Your task to perform on an android device: turn off translation in the chrome app Image 0: 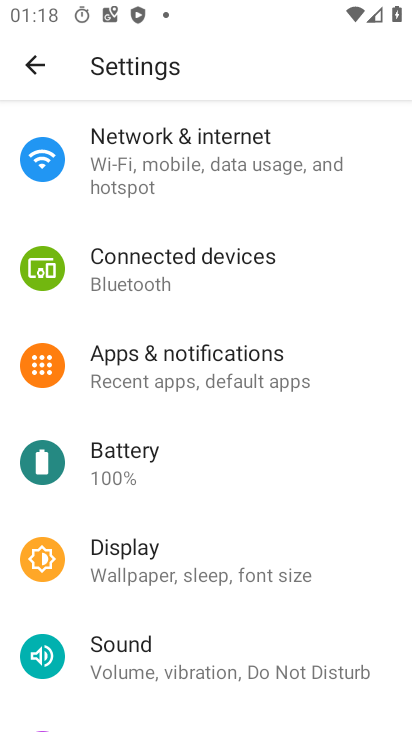
Step 0: press home button
Your task to perform on an android device: turn off translation in the chrome app Image 1: 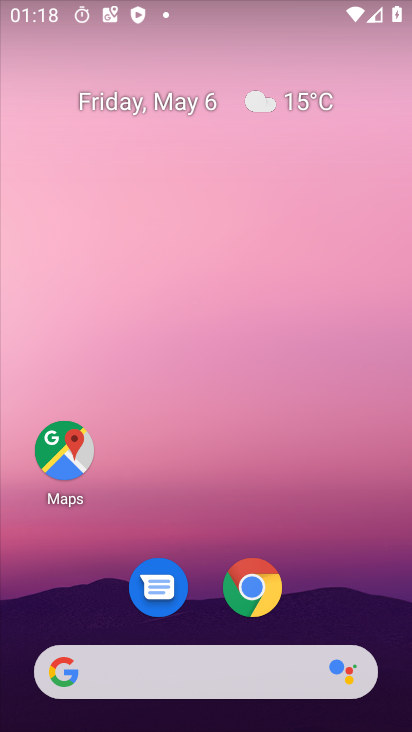
Step 1: drag from (385, 602) to (373, 340)
Your task to perform on an android device: turn off translation in the chrome app Image 2: 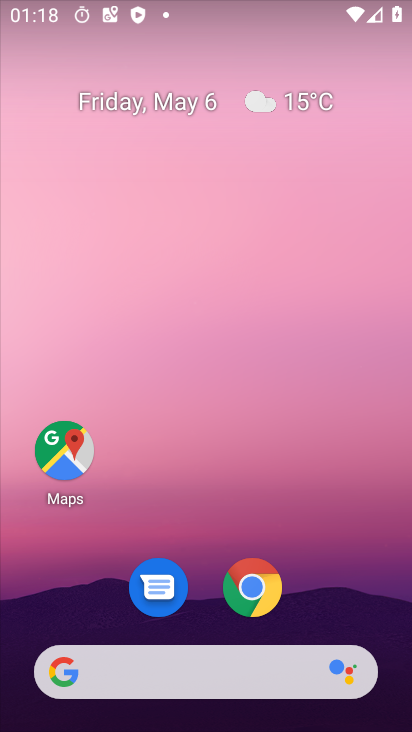
Step 2: drag from (390, 697) to (384, 633)
Your task to perform on an android device: turn off translation in the chrome app Image 3: 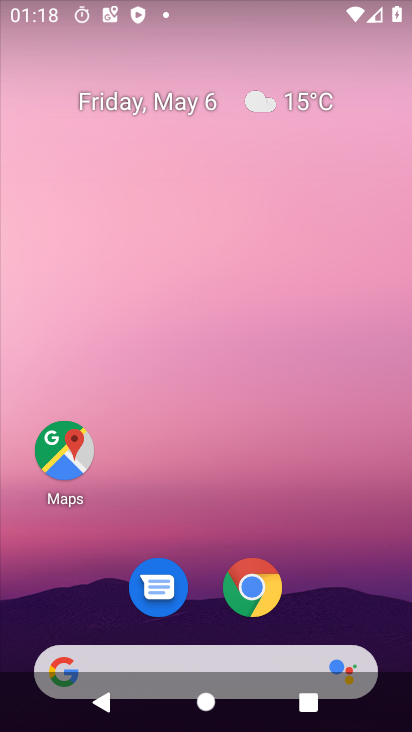
Step 3: drag from (385, 672) to (395, 222)
Your task to perform on an android device: turn off translation in the chrome app Image 4: 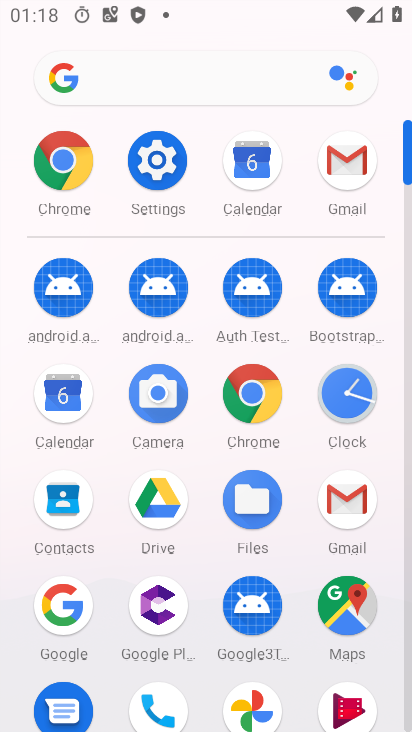
Step 4: click (234, 404)
Your task to perform on an android device: turn off translation in the chrome app Image 5: 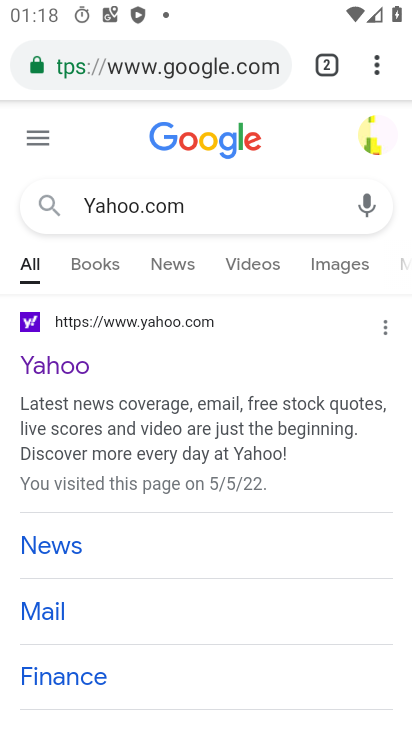
Step 5: click (374, 72)
Your task to perform on an android device: turn off translation in the chrome app Image 6: 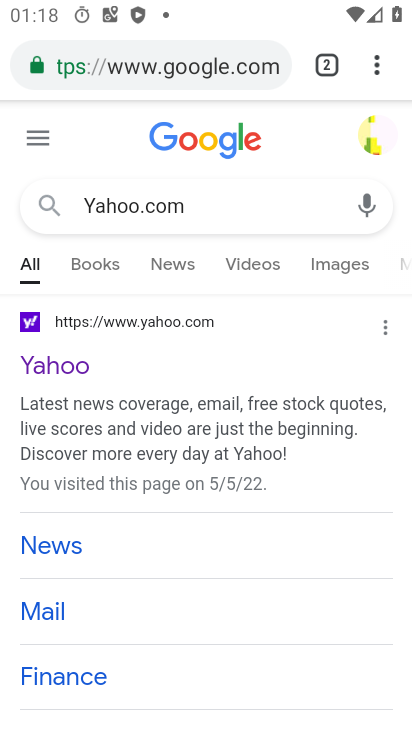
Step 6: click (374, 59)
Your task to perform on an android device: turn off translation in the chrome app Image 7: 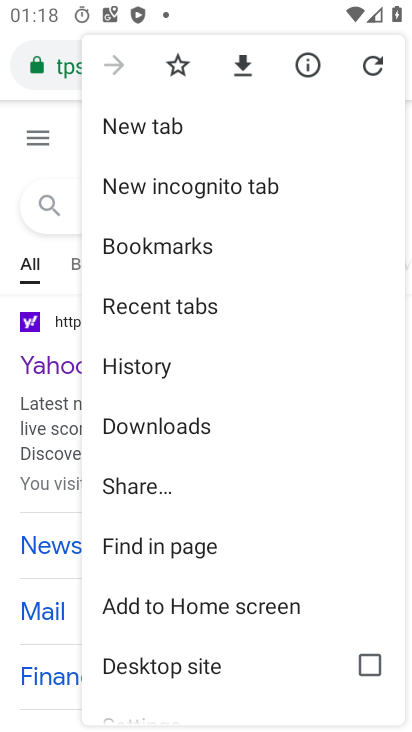
Step 7: drag from (296, 699) to (307, 333)
Your task to perform on an android device: turn off translation in the chrome app Image 8: 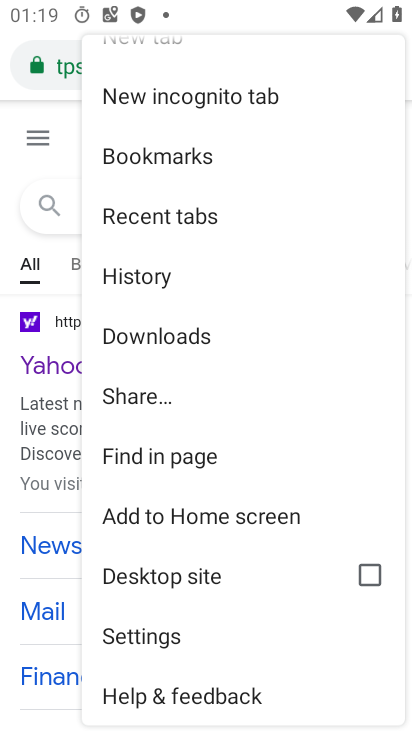
Step 8: click (132, 634)
Your task to perform on an android device: turn off translation in the chrome app Image 9: 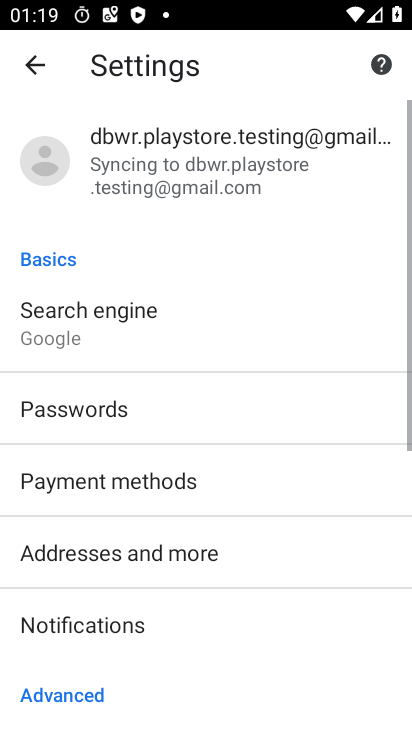
Step 9: drag from (243, 608) to (251, 491)
Your task to perform on an android device: turn off translation in the chrome app Image 10: 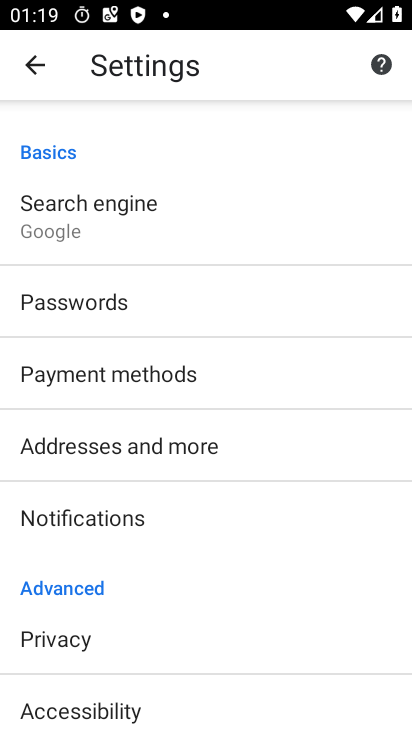
Step 10: drag from (281, 524) to (285, 434)
Your task to perform on an android device: turn off translation in the chrome app Image 11: 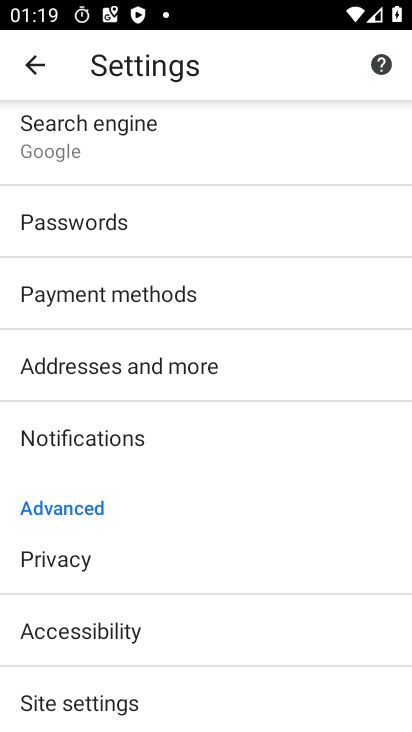
Step 11: drag from (311, 681) to (311, 415)
Your task to perform on an android device: turn off translation in the chrome app Image 12: 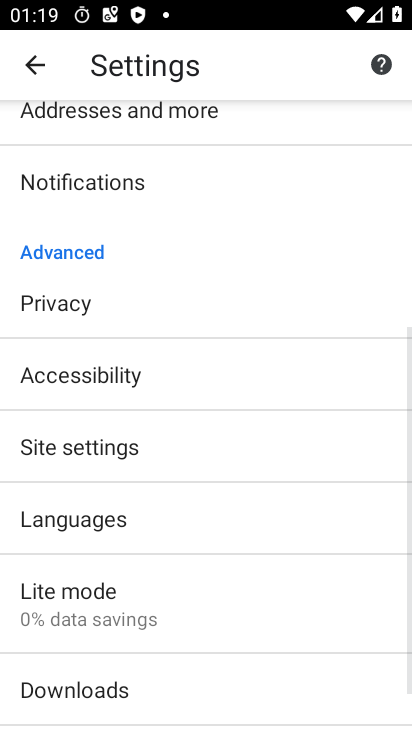
Step 12: click (111, 516)
Your task to perform on an android device: turn off translation in the chrome app Image 13: 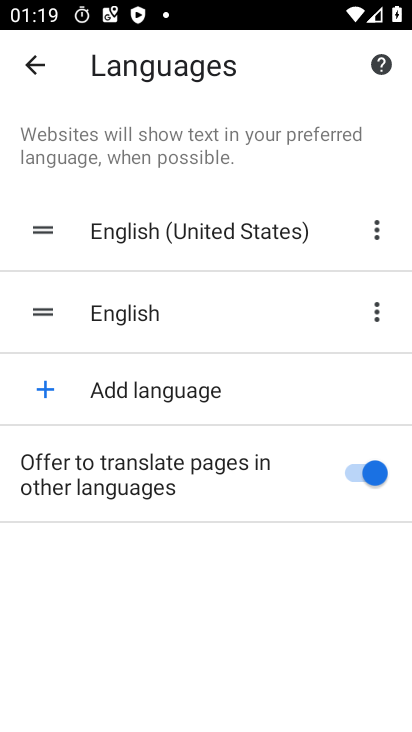
Step 13: click (349, 467)
Your task to perform on an android device: turn off translation in the chrome app Image 14: 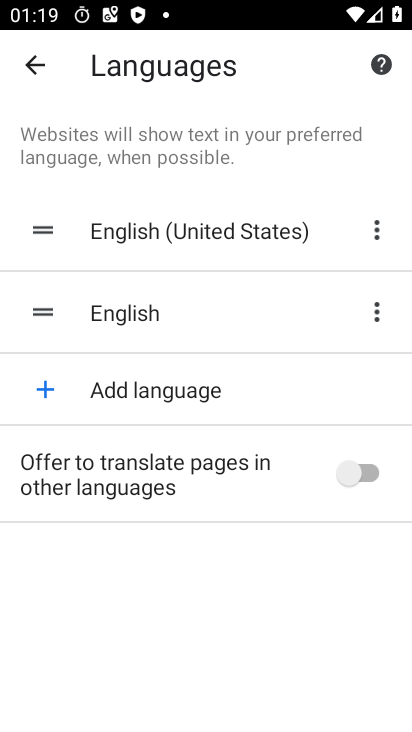
Step 14: task complete